Your task to perform on an android device: open chrome privacy settings Image 0: 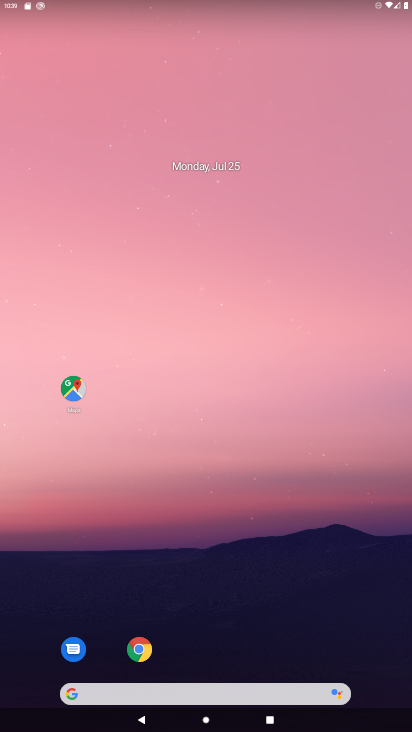
Step 0: click (141, 652)
Your task to perform on an android device: open chrome privacy settings Image 1: 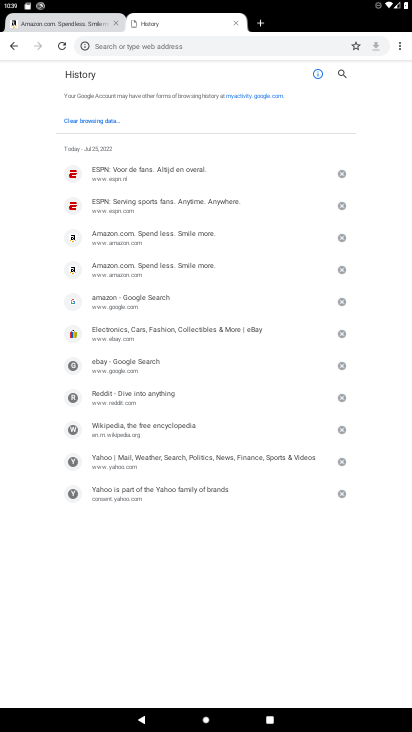
Step 1: click (399, 51)
Your task to perform on an android device: open chrome privacy settings Image 2: 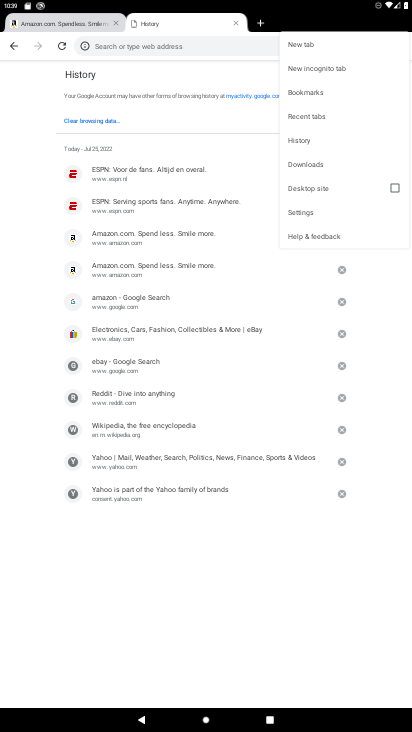
Step 2: click (297, 214)
Your task to perform on an android device: open chrome privacy settings Image 3: 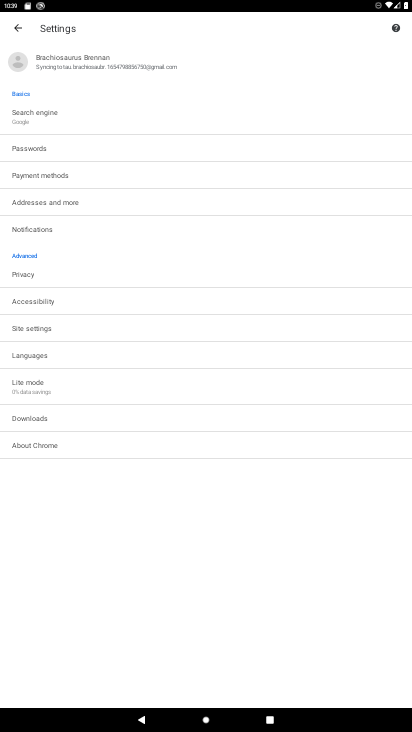
Step 3: click (23, 269)
Your task to perform on an android device: open chrome privacy settings Image 4: 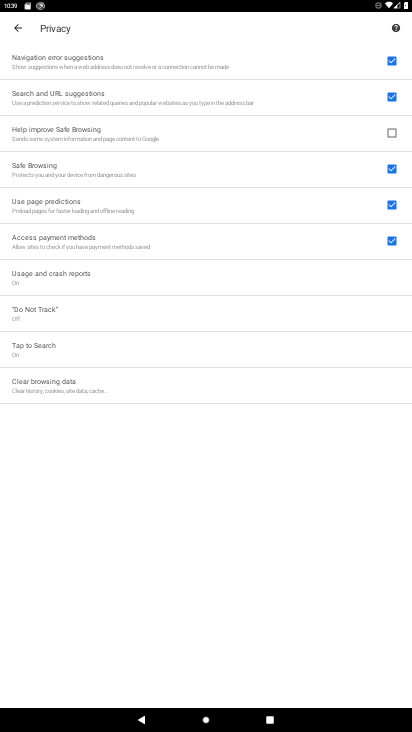
Step 4: task complete